Your task to perform on an android device: find photos in the google photos app Image 0: 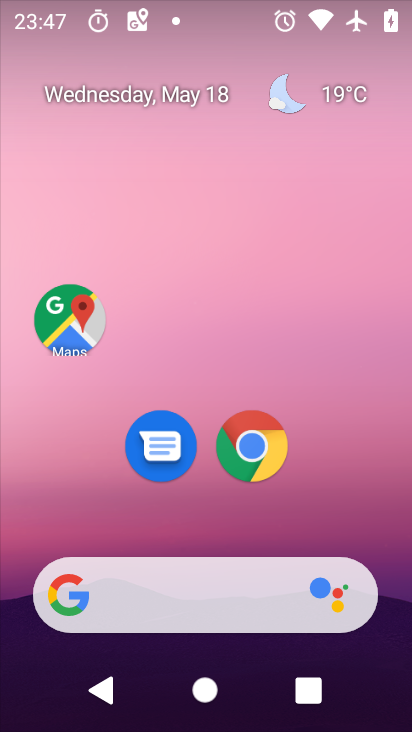
Step 0: press home button
Your task to perform on an android device: find photos in the google photos app Image 1: 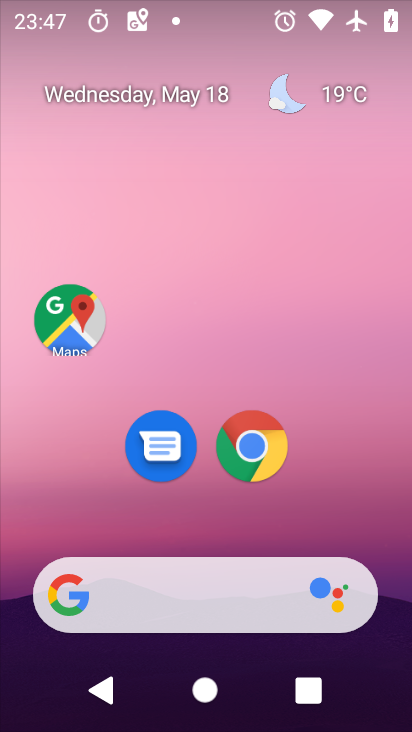
Step 1: drag from (227, 591) to (368, 95)
Your task to perform on an android device: find photos in the google photos app Image 2: 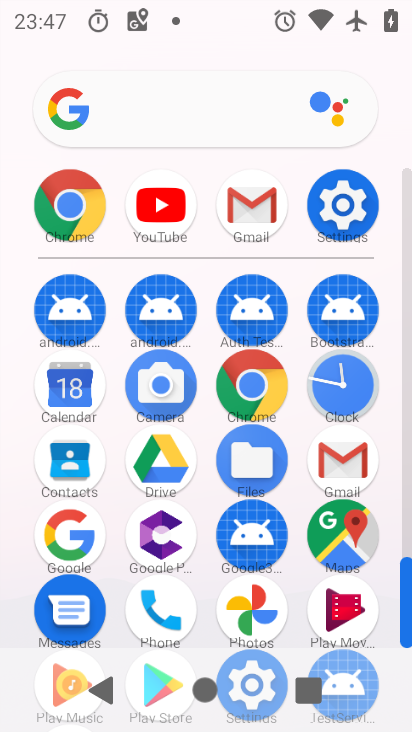
Step 2: click (258, 609)
Your task to perform on an android device: find photos in the google photos app Image 3: 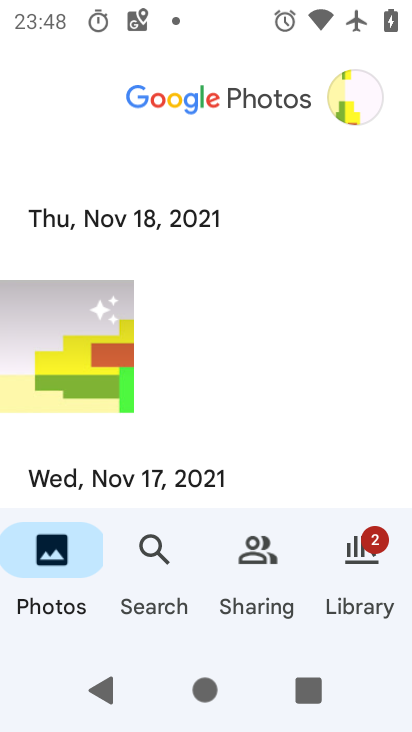
Step 3: task complete